Your task to perform on an android device: Show me popular games on the Play Store Image 0: 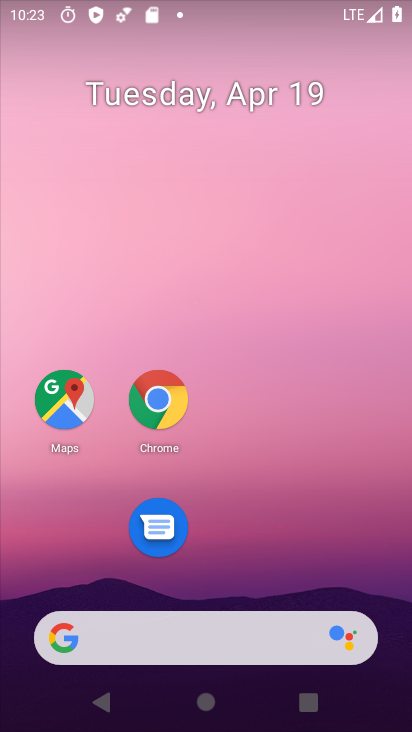
Step 0: drag from (254, 664) to (306, 183)
Your task to perform on an android device: Show me popular games on the Play Store Image 1: 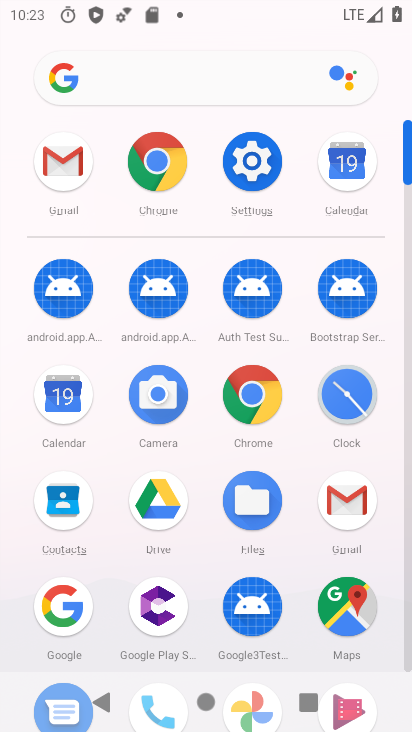
Step 1: drag from (202, 544) to (213, 374)
Your task to perform on an android device: Show me popular games on the Play Store Image 2: 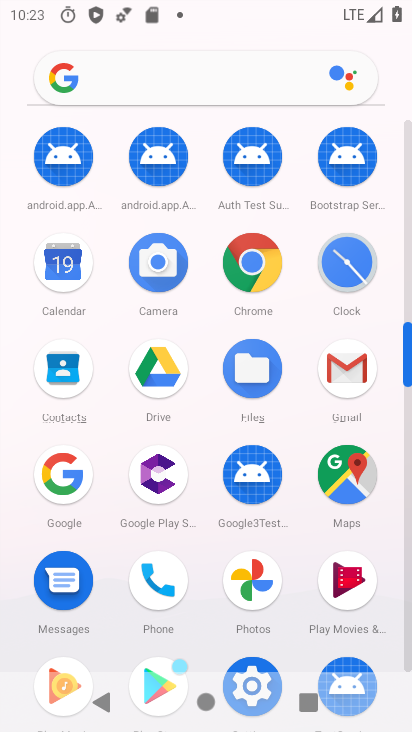
Step 2: click (158, 653)
Your task to perform on an android device: Show me popular games on the Play Store Image 3: 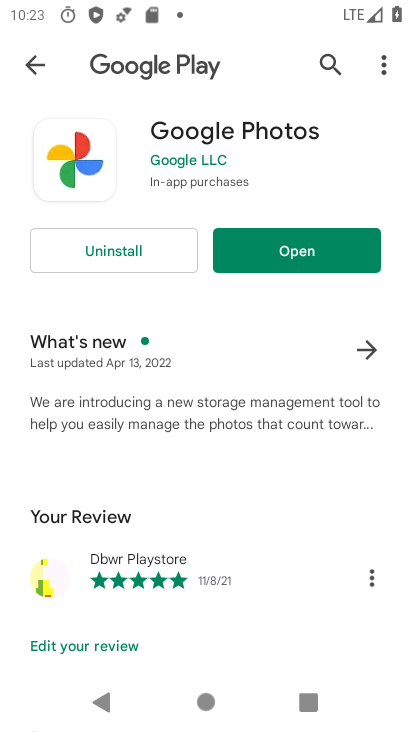
Step 3: click (31, 71)
Your task to perform on an android device: Show me popular games on the Play Store Image 4: 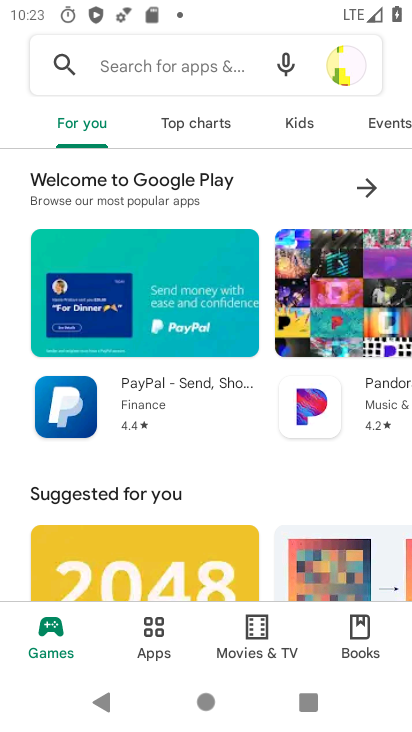
Step 4: click (143, 69)
Your task to perform on an android device: Show me popular games on the Play Store Image 5: 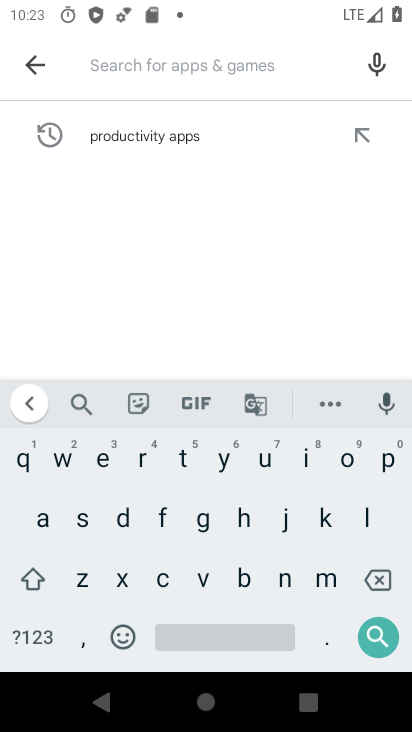
Step 5: click (388, 468)
Your task to perform on an android device: Show me popular games on the Play Store Image 6: 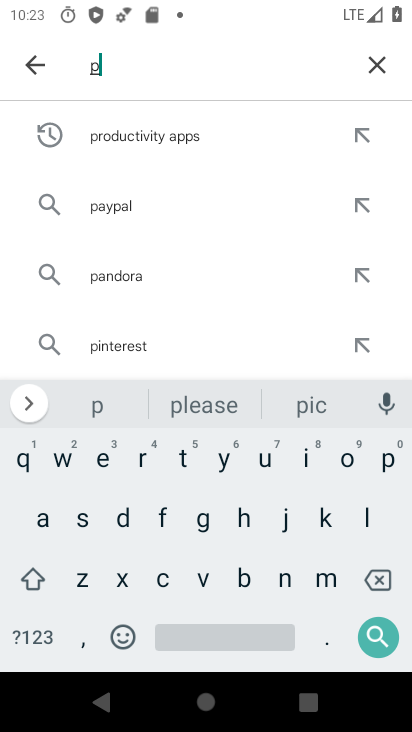
Step 6: click (338, 462)
Your task to perform on an android device: Show me popular games on the Play Store Image 7: 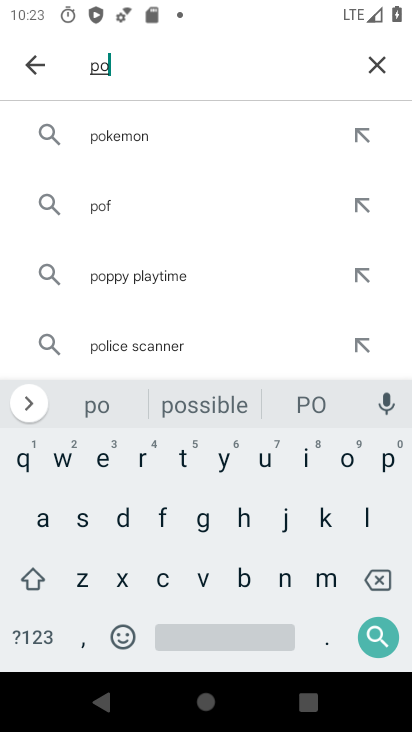
Step 7: click (386, 470)
Your task to perform on an android device: Show me popular games on the Play Store Image 8: 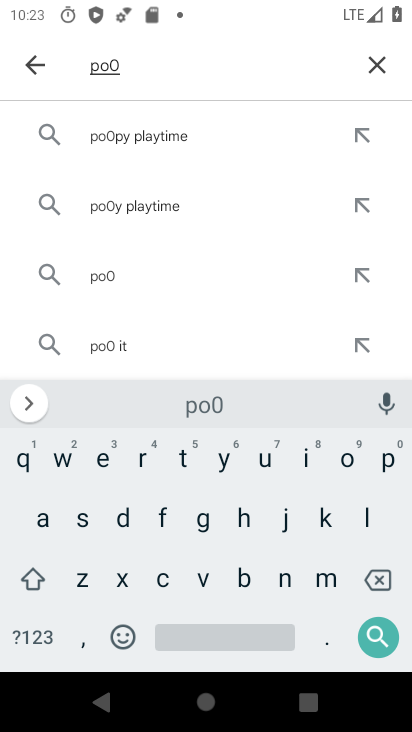
Step 8: click (380, 573)
Your task to perform on an android device: Show me popular games on the Play Store Image 9: 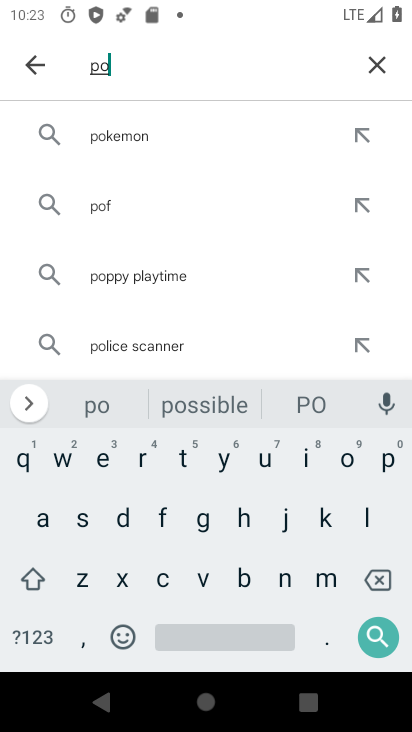
Step 9: click (386, 473)
Your task to perform on an android device: Show me popular games on the Play Store Image 10: 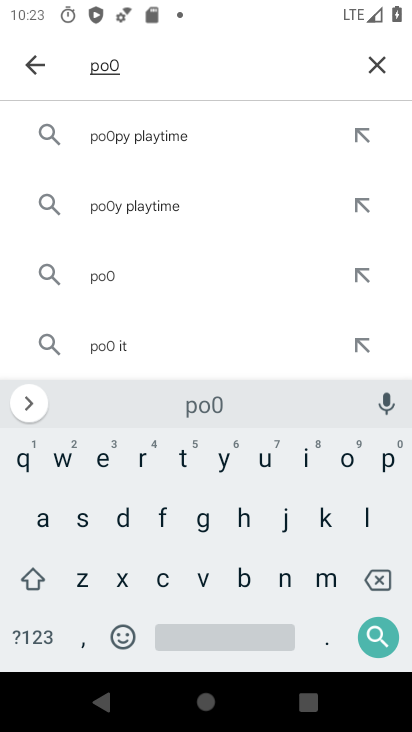
Step 10: click (375, 565)
Your task to perform on an android device: Show me popular games on the Play Store Image 11: 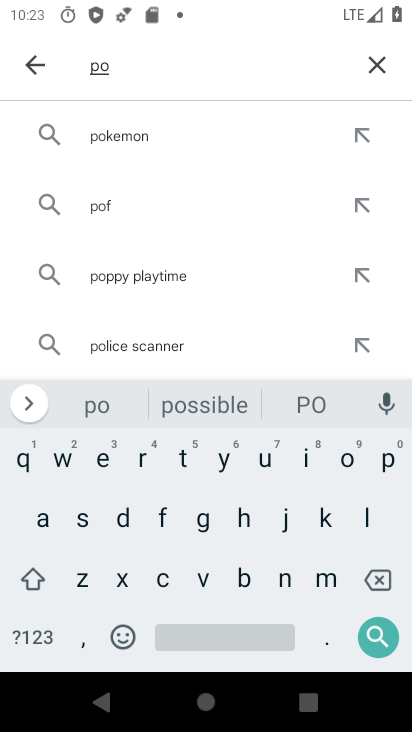
Step 11: click (386, 475)
Your task to perform on an android device: Show me popular games on the Play Store Image 12: 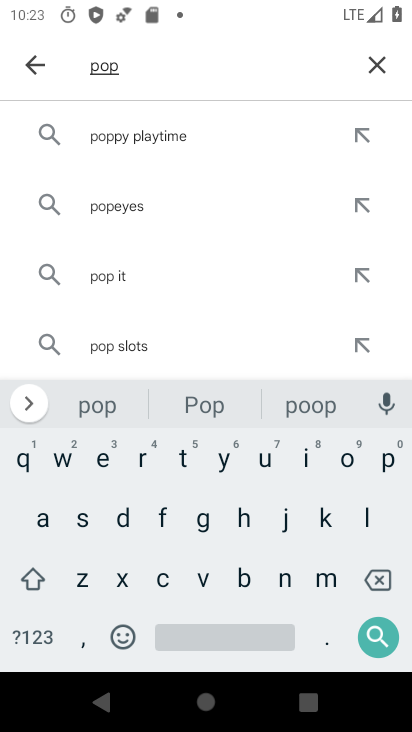
Step 12: click (264, 458)
Your task to perform on an android device: Show me popular games on the Play Store Image 13: 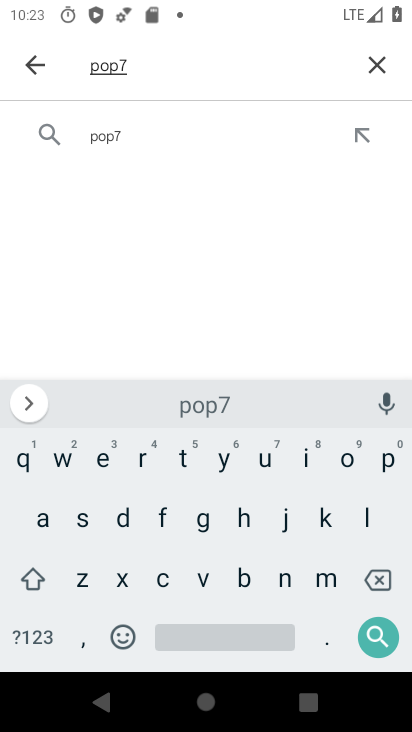
Step 13: click (378, 581)
Your task to perform on an android device: Show me popular games on the Play Store Image 14: 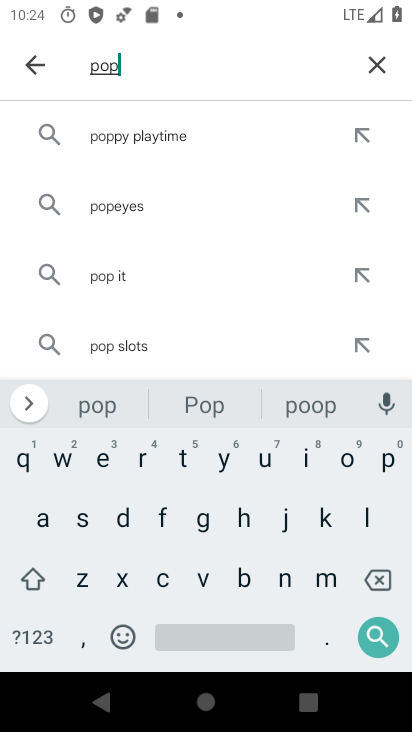
Step 14: click (266, 466)
Your task to perform on an android device: Show me popular games on the Play Store Image 15: 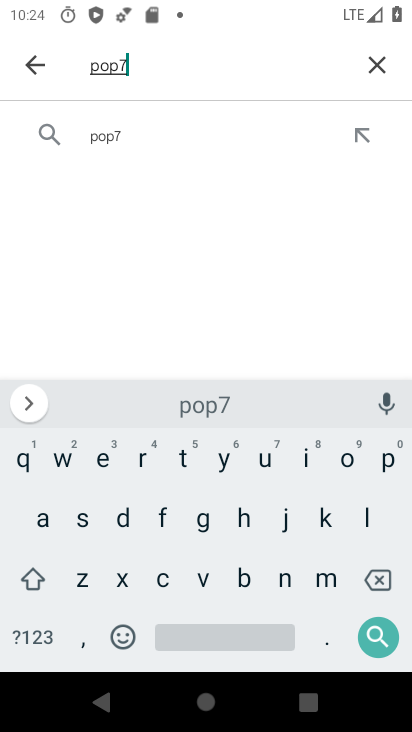
Step 15: click (385, 576)
Your task to perform on an android device: Show me popular games on the Play Store Image 16: 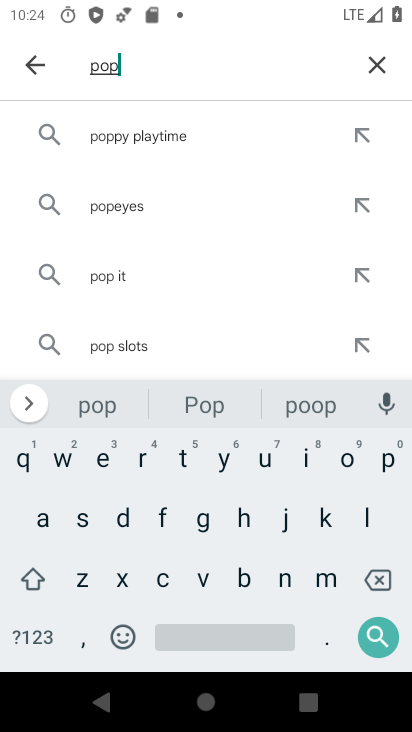
Step 16: click (265, 466)
Your task to perform on an android device: Show me popular games on the Play Store Image 17: 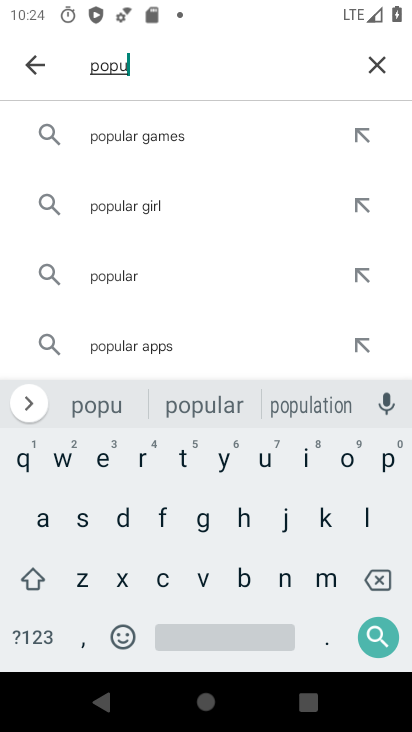
Step 17: click (131, 137)
Your task to perform on an android device: Show me popular games on the Play Store Image 18: 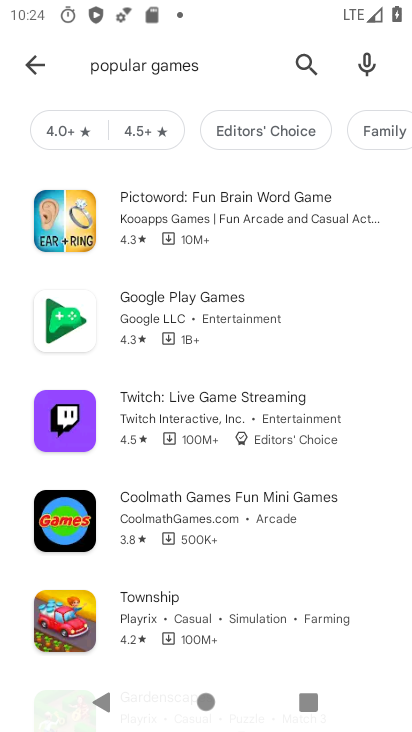
Step 18: task complete